Your task to perform on an android device: Go to Amazon Image 0: 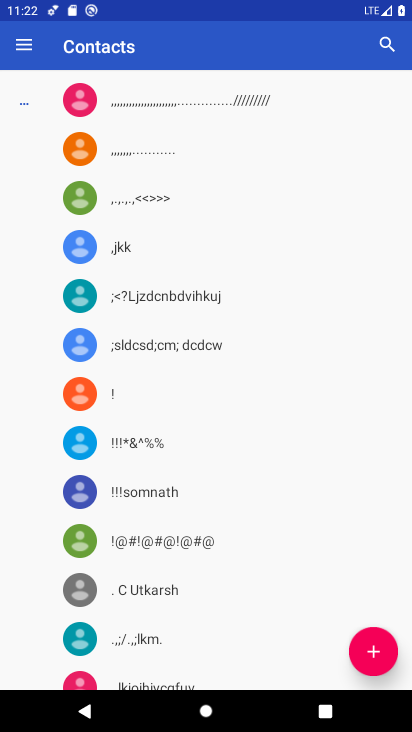
Step 0: press home button
Your task to perform on an android device: Go to Amazon Image 1: 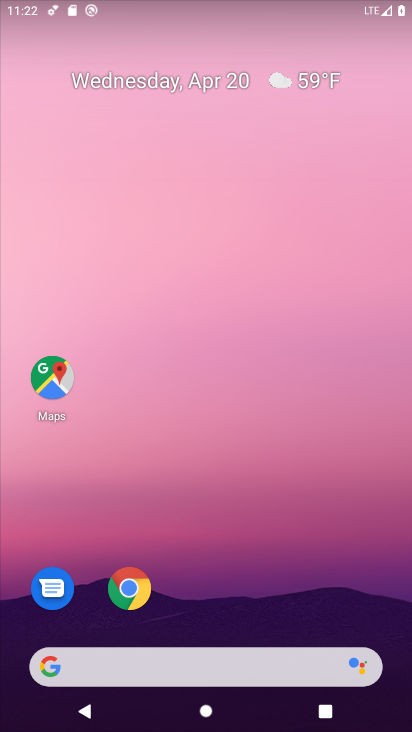
Step 1: click (126, 590)
Your task to perform on an android device: Go to Amazon Image 2: 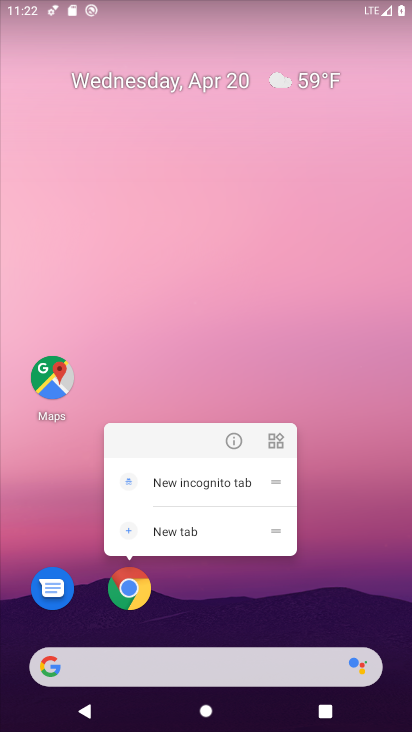
Step 2: click (129, 596)
Your task to perform on an android device: Go to Amazon Image 3: 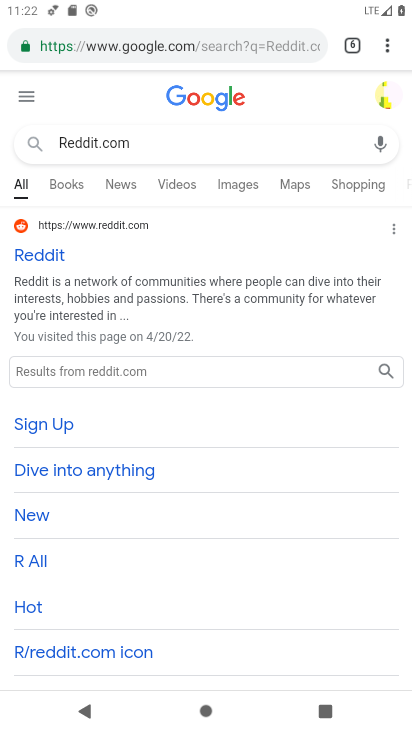
Step 3: click (384, 49)
Your task to perform on an android device: Go to Amazon Image 4: 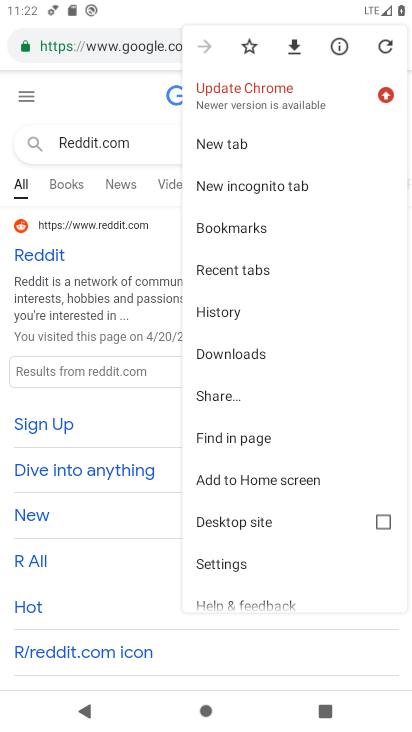
Step 4: click (225, 142)
Your task to perform on an android device: Go to Amazon Image 5: 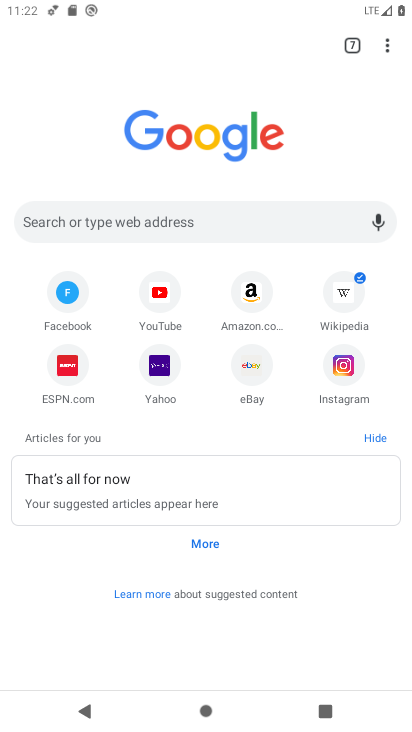
Step 5: click (245, 299)
Your task to perform on an android device: Go to Amazon Image 6: 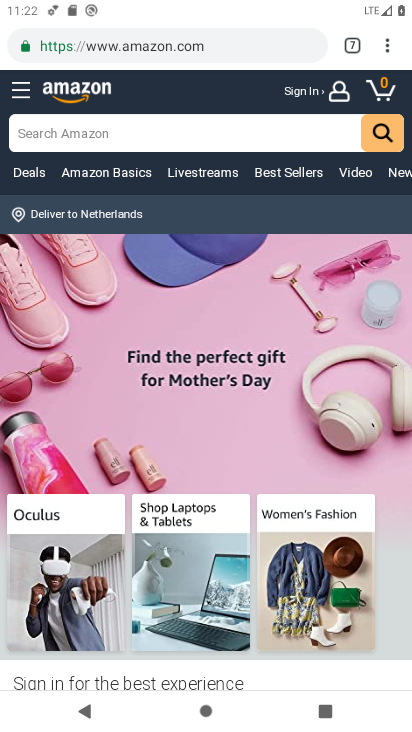
Step 6: task complete